Your task to perform on an android device: Go to sound settings Image 0: 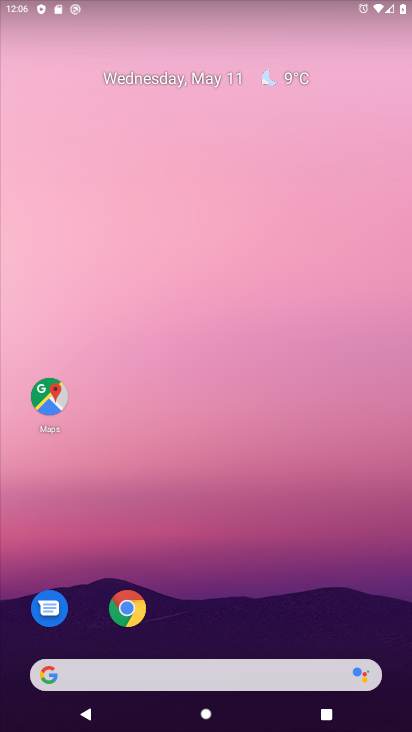
Step 0: drag from (250, 690) to (256, 395)
Your task to perform on an android device: Go to sound settings Image 1: 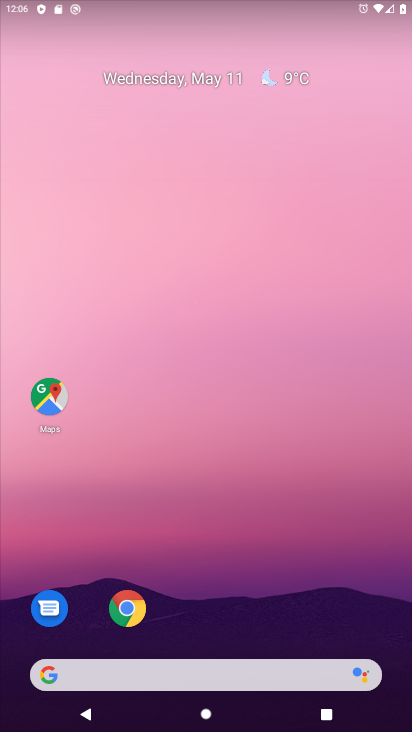
Step 1: drag from (219, 623) to (245, 192)
Your task to perform on an android device: Go to sound settings Image 2: 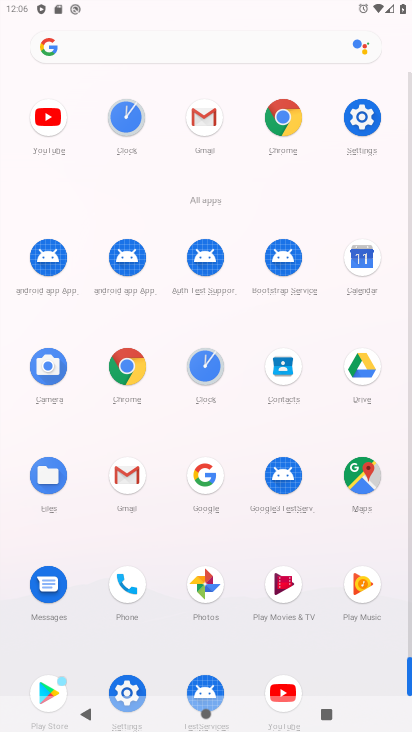
Step 2: click (363, 134)
Your task to perform on an android device: Go to sound settings Image 3: 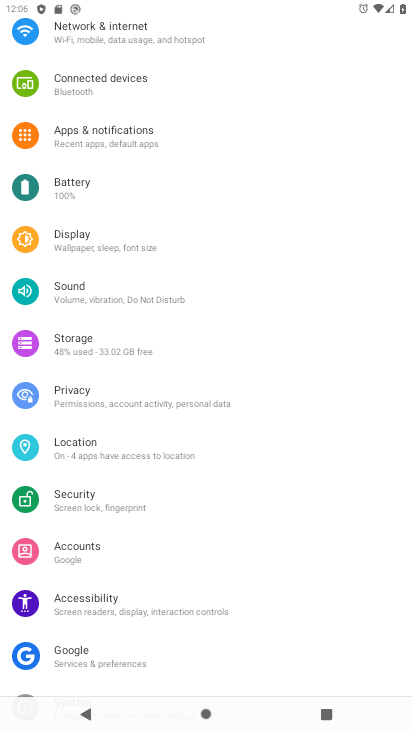
Step 3: click (133, 289)
Your task to perform on an android device: Go to sound settings Image 4: 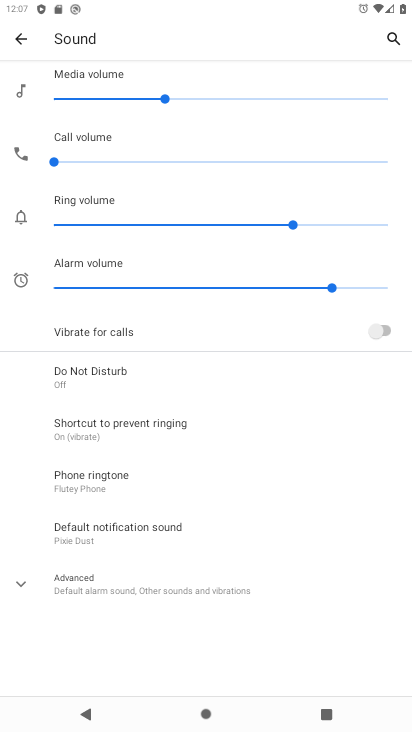
Step 4: task complete